Your task to perform on an android device: Show me the alarms in the clock app Image 0: 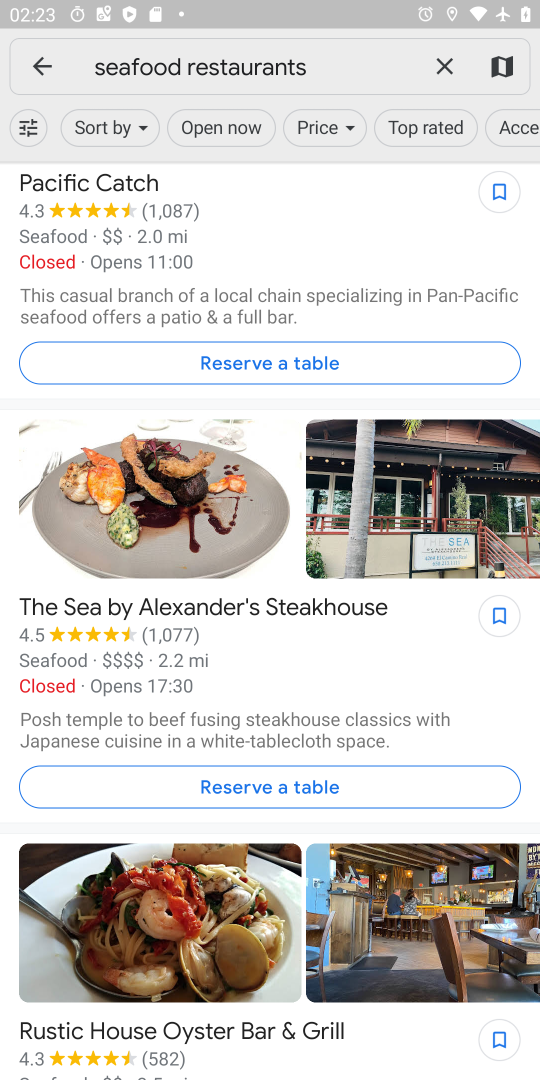
Step 0: press home button
Your task to perform on an android device: Show me the alarms in the clock app Image 1: 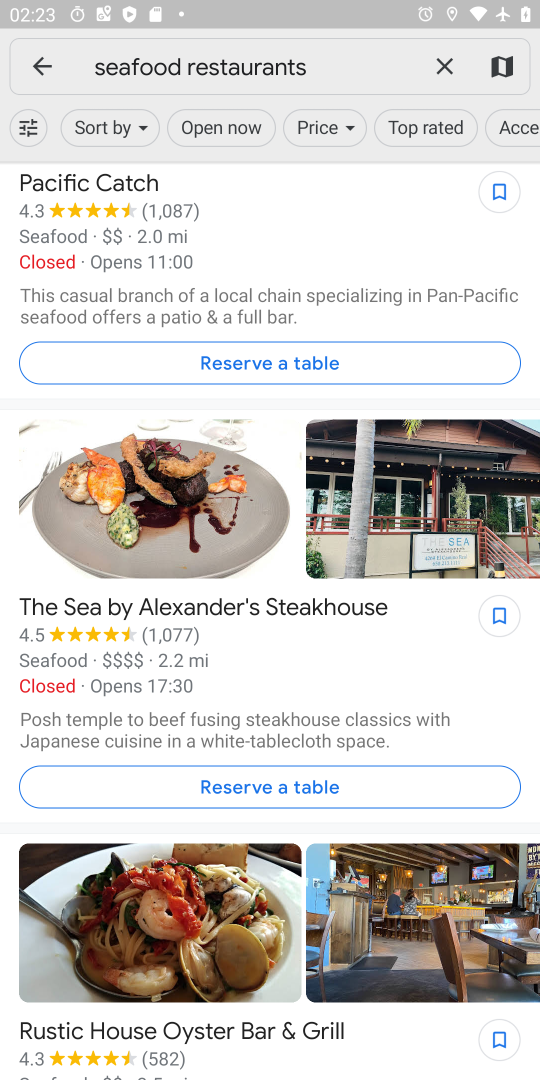
Step 1: press home button
Your task to perform on an android device: Show me the alarms in the clock app Image 2: 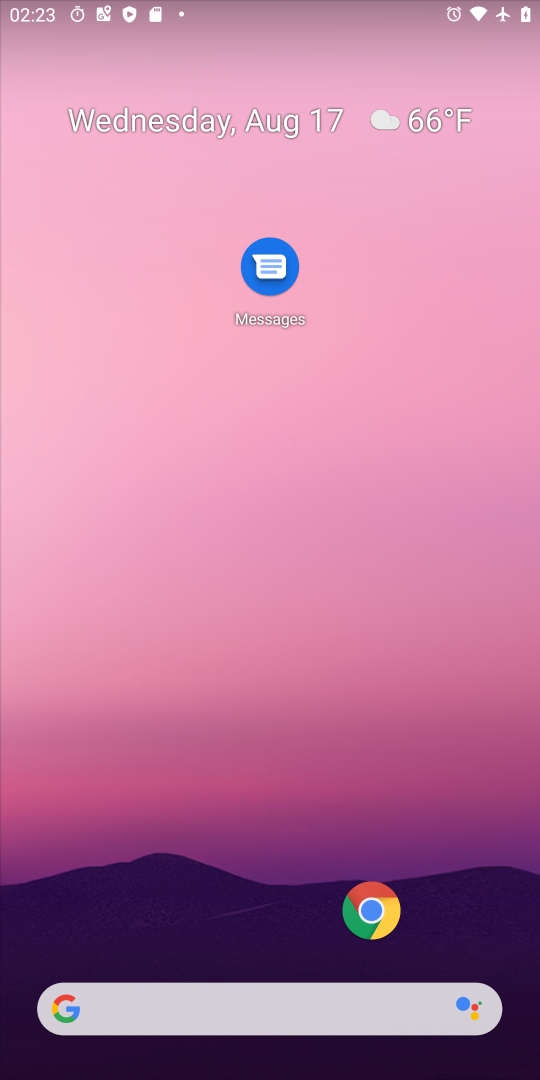
Step 2: drag from (196, 788) to (215, 134)
Your task to perform on an android device: Show me the alarms in the clock app Image 3: 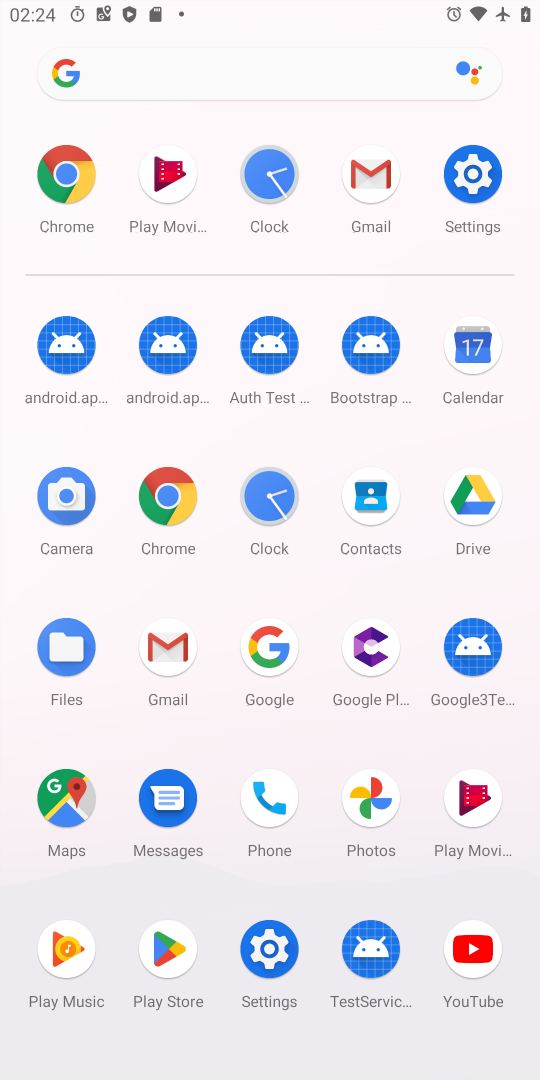
Step 3: click (255, 484)
Your task to perform on an android device: Show me the alarms in the clock app Image 4: 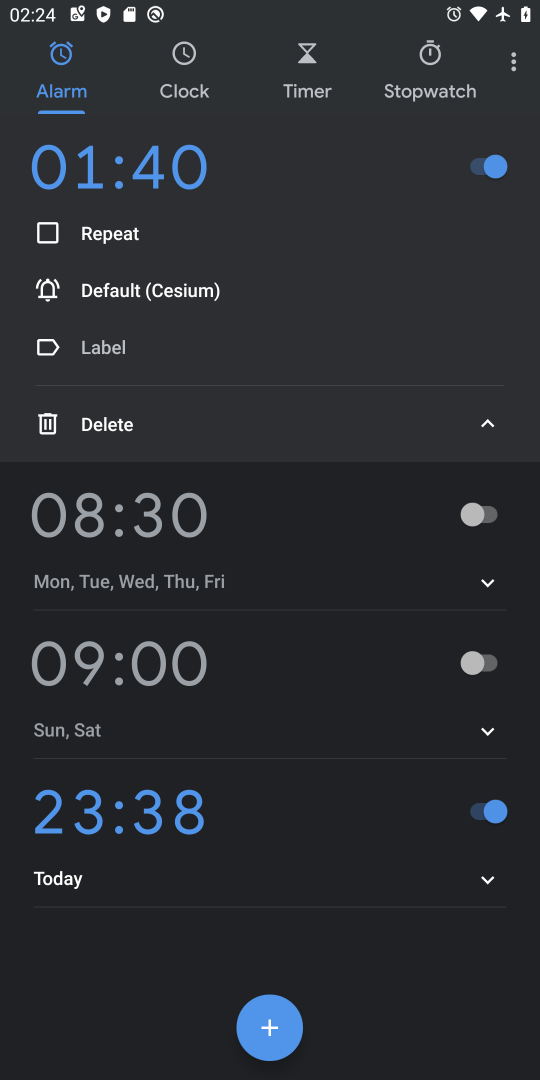
Step 4: task complete